Your task to perform on an android device: turn on wifi Image 0: 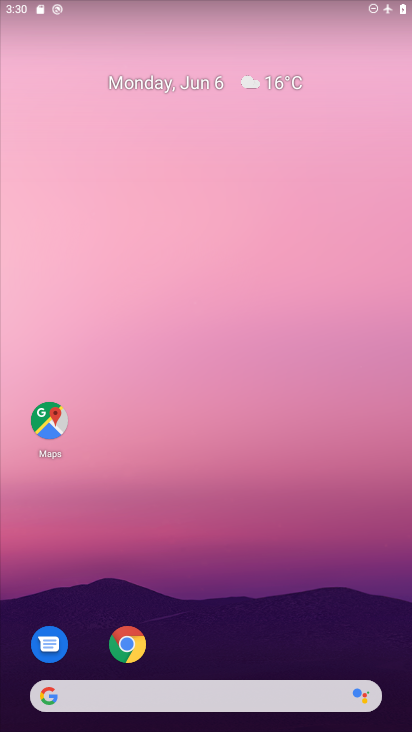
Step 0: drag from (269, 600) to (212, 74)
Your task to perform on an android device: turn on wifi Image 1: 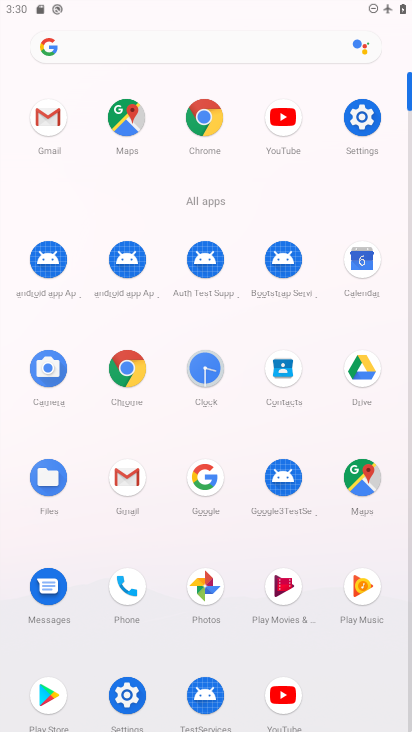
Step 1: click (358, 114)
Your task to perform on an android device: turn on wifi Image 2: 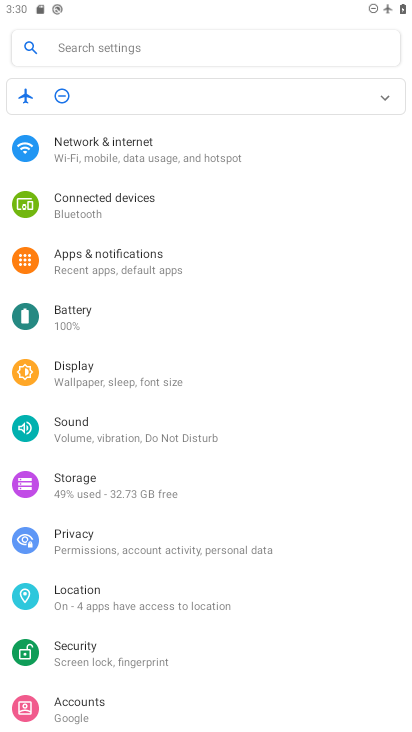
Step 2: click (135, 158)
Your task to perform on an android device: turn on wifi Image 3: 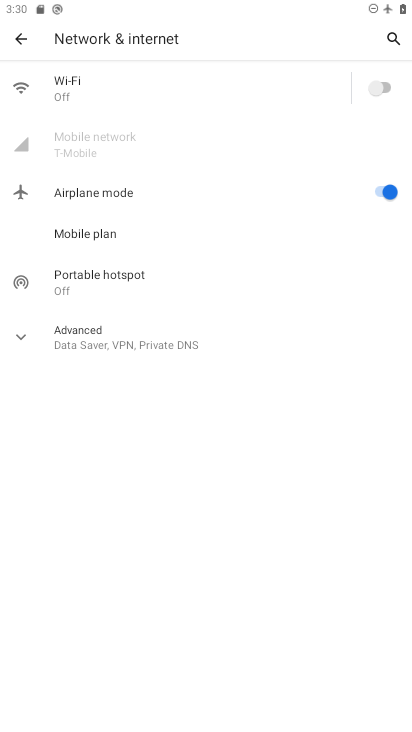
Step 3: click (384, 86)
Your task to perform on an android device: turn on wifi Image 4: 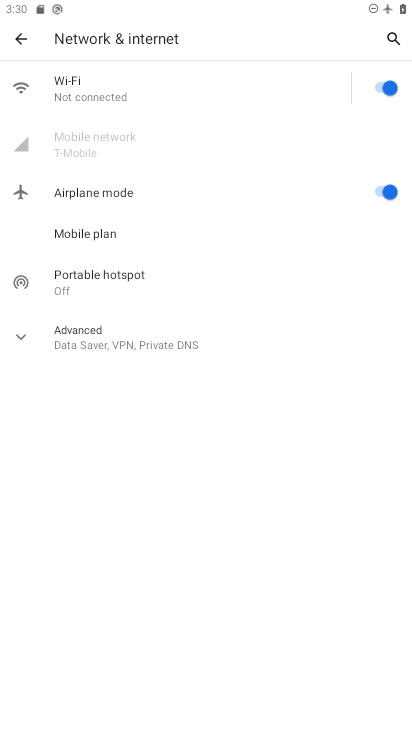
Step 4: task complete